Your task to perform on an android device: move an email to a new category in the gmail app Image 0: 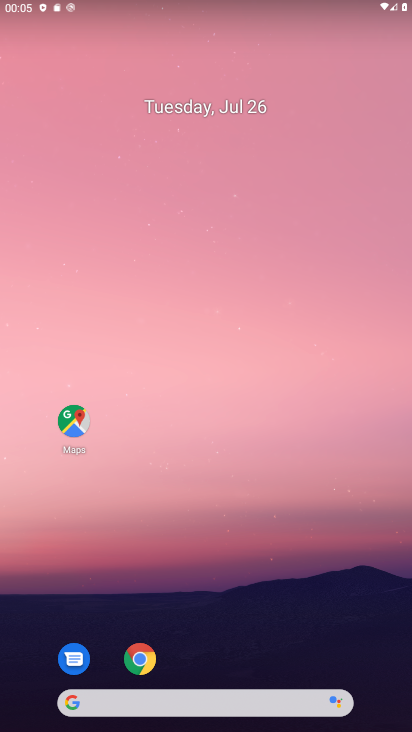
Step 0: press home button
Your task to perform on an android device: move an email to a new category in the gmail app Image 1: 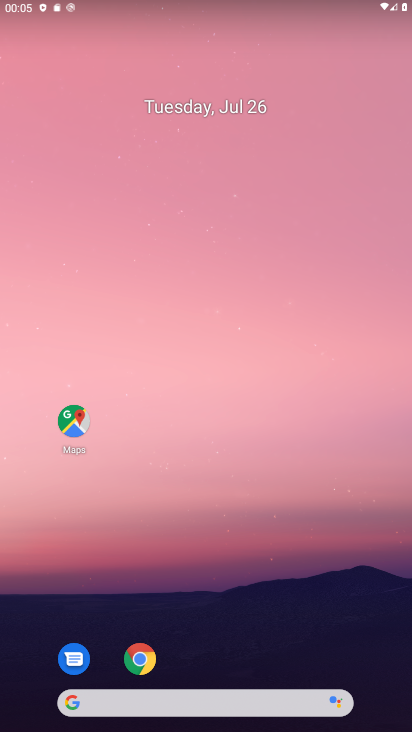
Step 1: drag from (268, 677) to (342, 138)
Your task to perform on an android device: move an email to a new category in the gmail app Image 2: 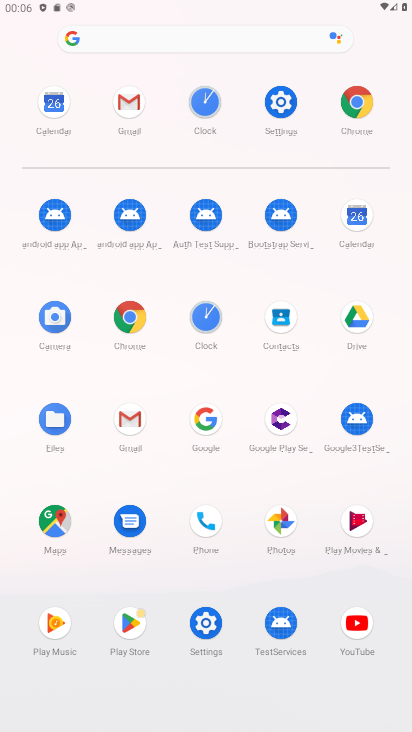
Step 2: click (136, 409)
Your task to perform on an android device: move an email to a new category in the gmail app Image 3: 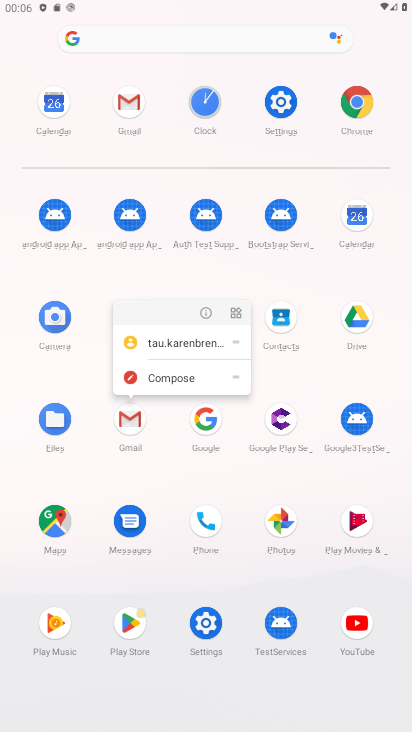
Step 3: click (122, 431)
Your task to perform on an android device: move an email to a new category in the gmail app Image 4: 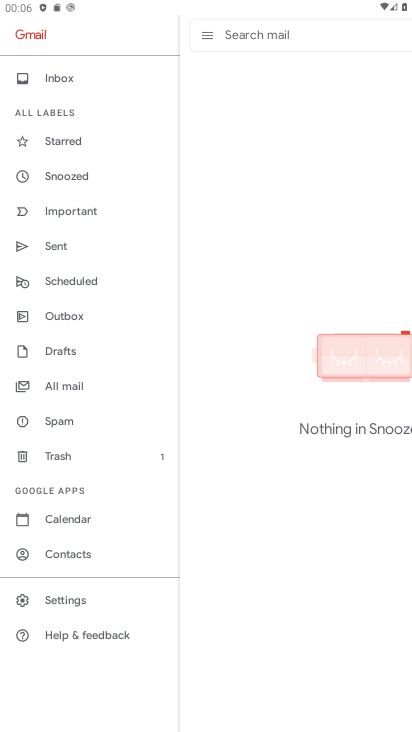
Step 4: click (58, 81)
Your task to perform on an android device: move an email to a new category in the gmail app Image 5: 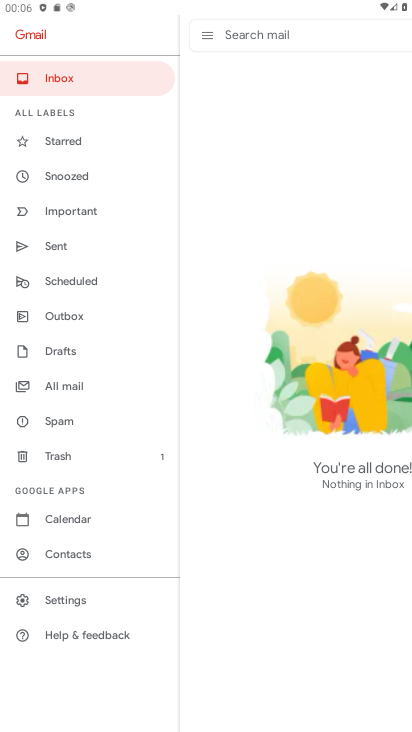
Step 5: click (326, 234)
Your task to perform on an android device: move an email to a new category in the gmail app Image 6: 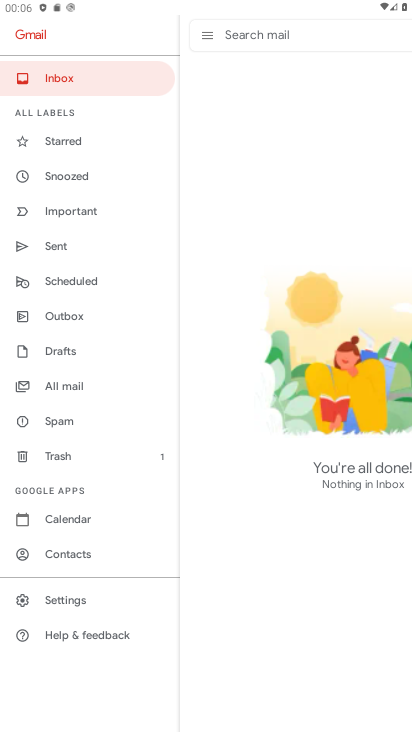
Step 6: click (207, 28)
Your task to perform on an android device: move an email to a new category in the gmail app Image 7: 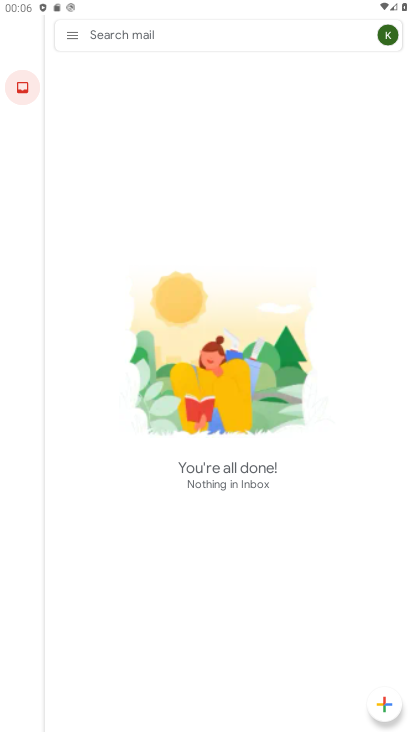
Step 7: task complete